Your task to perform on an android device: Show me productivity apps on the Play Store Image 0: 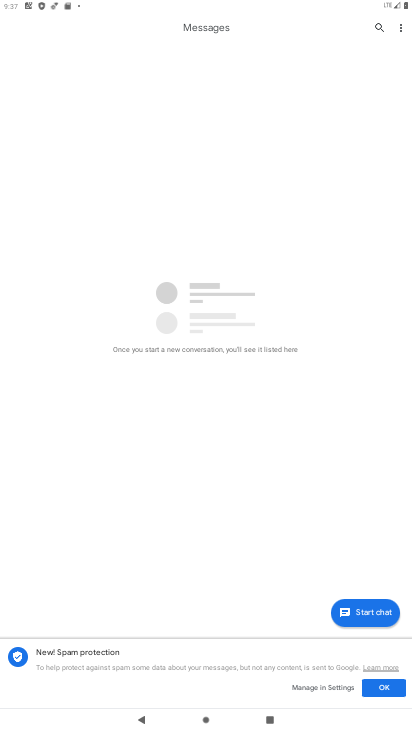
Step 0: press home button
Your task to perform on an android device: Show me productivity apps on the Play Store Image 1: 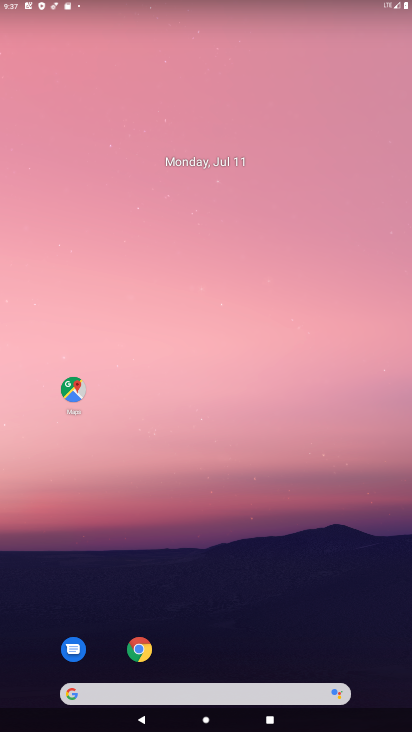
Step 1: drag from (199, 667) to (225, 160)
Your task to perform on an android device: Show me productivity apps on the Play Store Image 2: 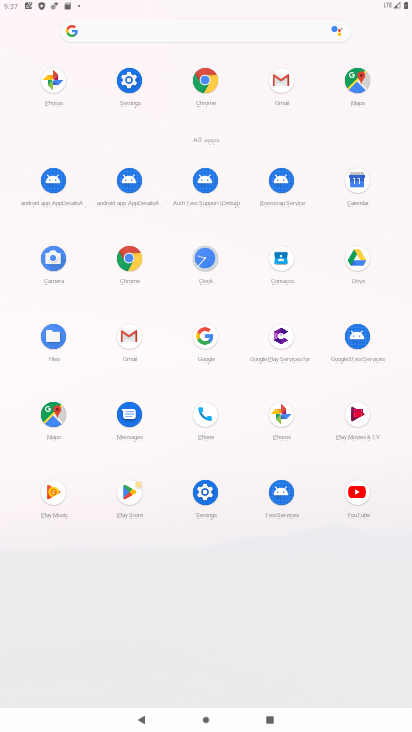
Step 2: click (122, 502)
Your task to perform on an android device: Show me productivity apps on the Play Store Image 3: 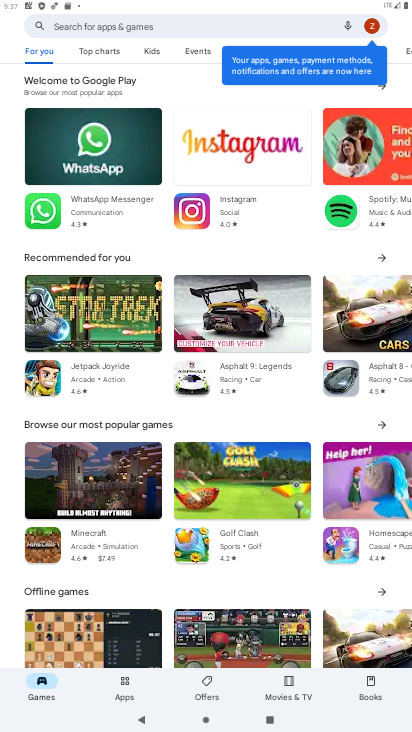
Step 3: click (119, 685)
Your task to perform on an android device: Show me productivity apps on the Play Store Image 4: 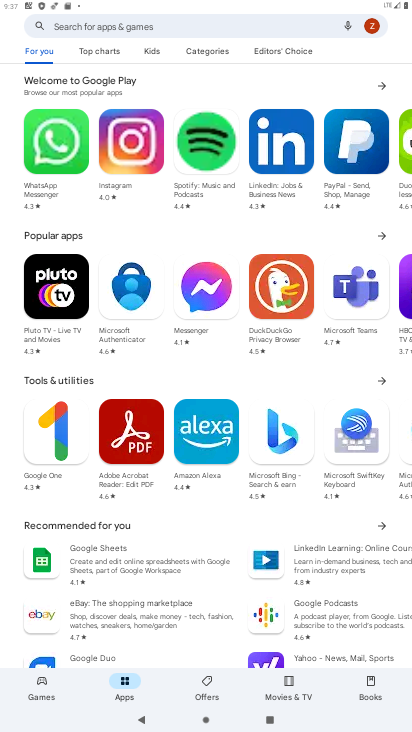
Step 4: click (209, 54)
Your task to perform on an android device: Show me productivity apps on the Play Store Image 5: 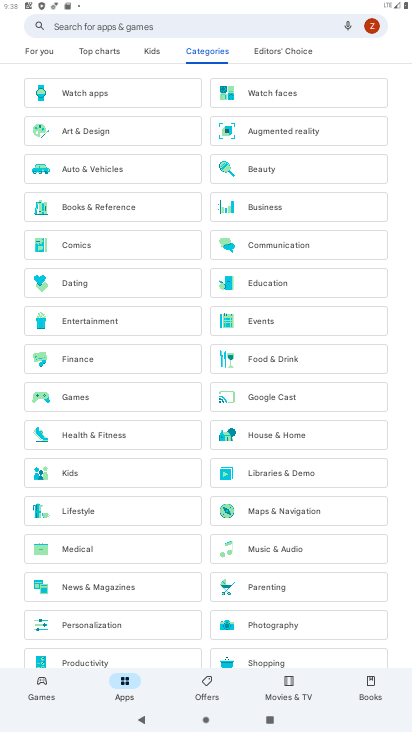
Step 5: drag from (205, 622) to (203, 517)
Your task to perform on an android device: Show me productivity apps on the Play Store Image 6: 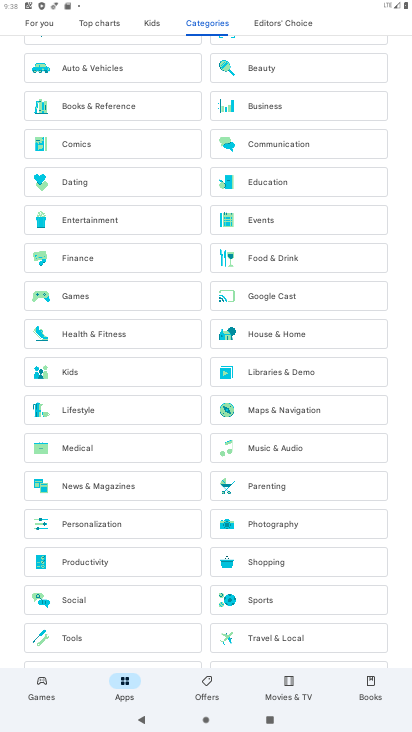
Step 6: click (120, 563)
Your task to perform on an android device: Show me productivity apps on the Play Store Image 7: 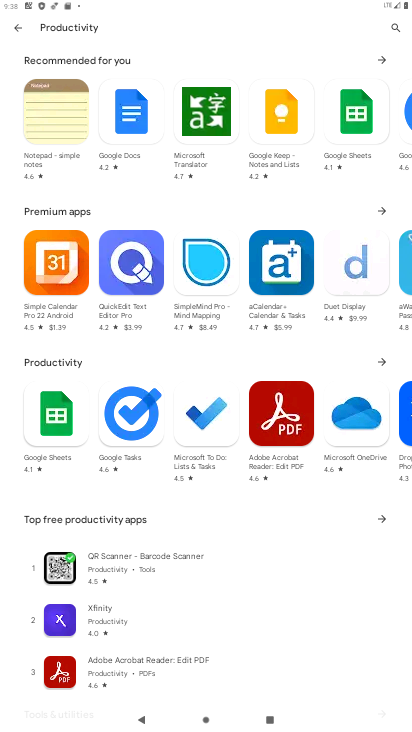
Step 7: task complete